Your task to perform on an android device: Go to internet settings Image 0: 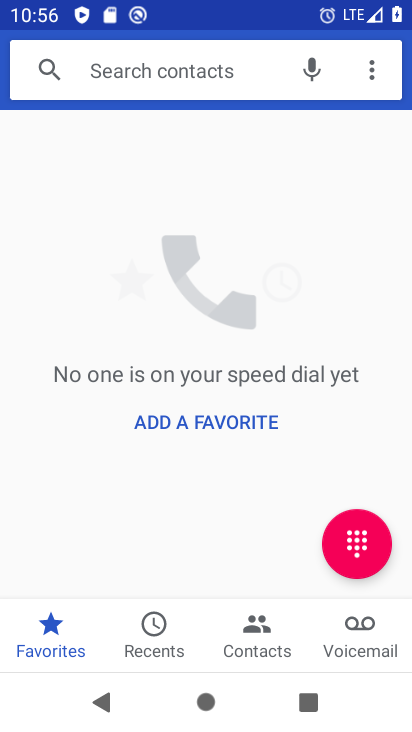
Step 0: press home button
Your task to perform on an android device: Go to internet settings Image 1: 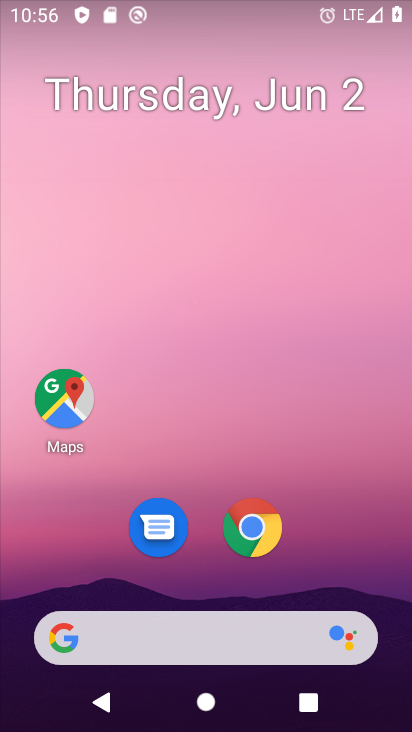
Step 1: drag from (211, 636) to (240, 184)
Your task to perform on an android device: Go to internet settings Image 2: 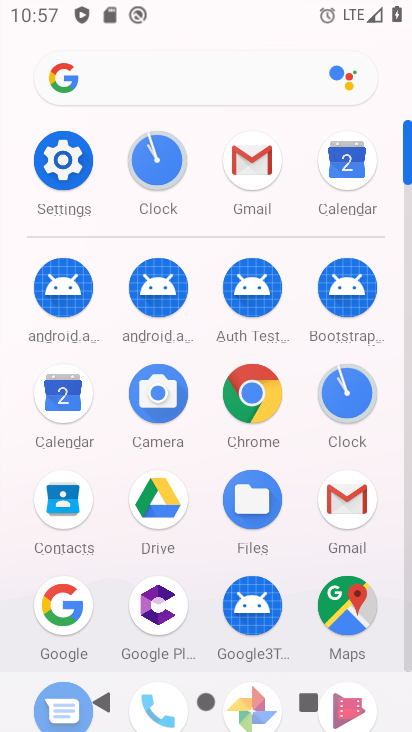
Step 2: click (67, 156)
Your task to perform on an android device: Go to internet settings Image 3: 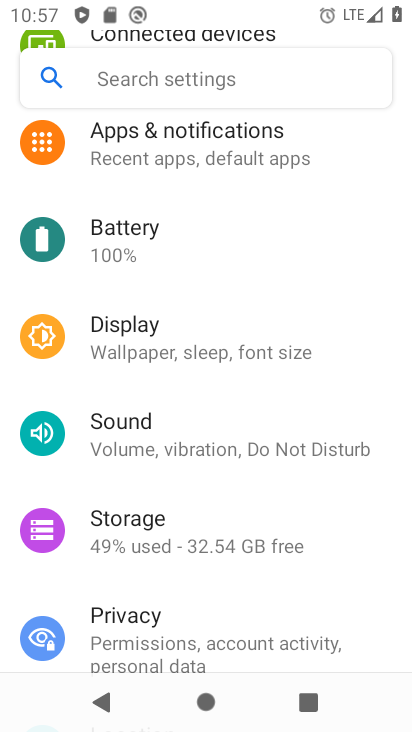
Step 3: drag from (158, 176) to (183, 601)
Your task to perform on an android device: Go to internet settings Image 4: 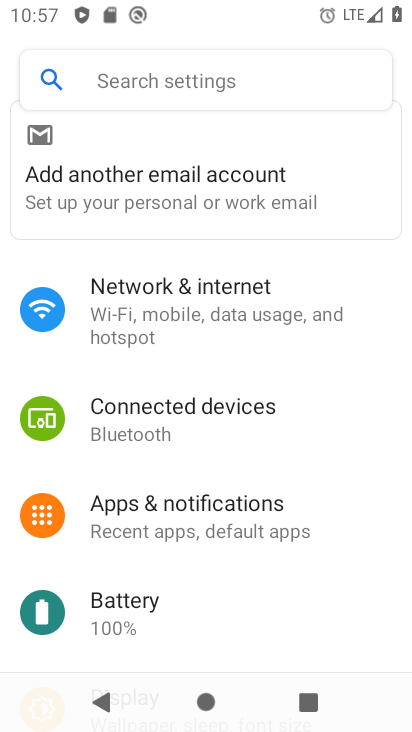
Step 4: click (159, 316)
Your task to perform on an android device: Go to internet settings Image 5: 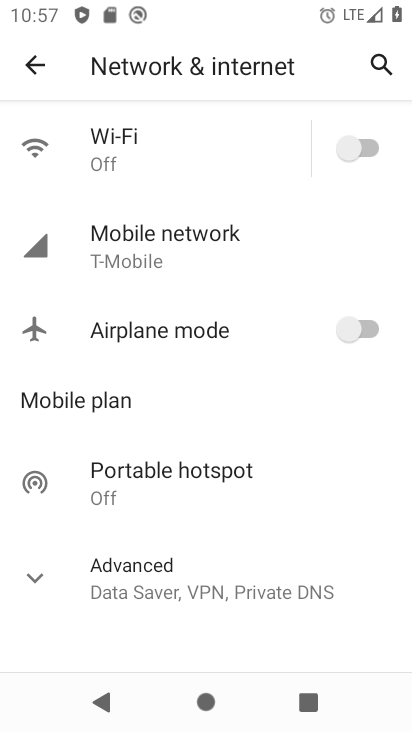
Step 5: task complete